Your task to perform on an android device: check out phone information Image 0: 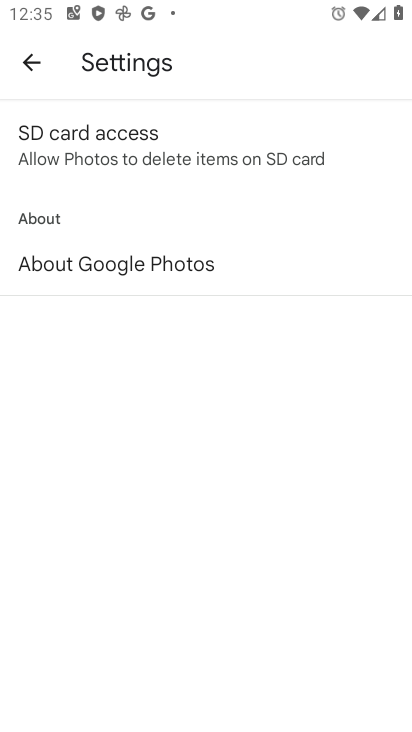
Step 0: click (26, 57)
Your task to perform on an android device: check out phone information Image 1: 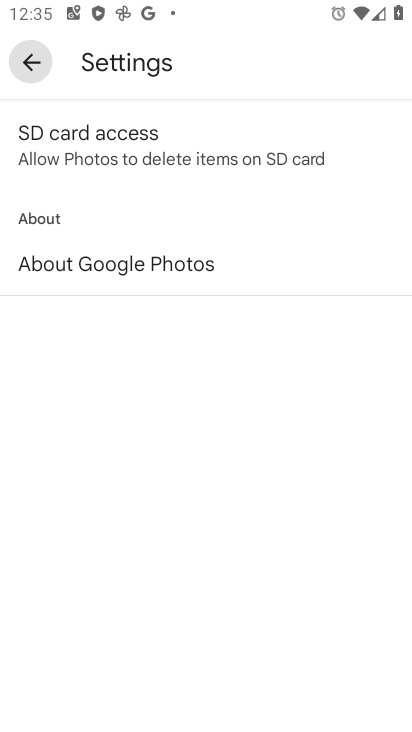
Step 1: click (27, 58)
Your task to perform on an android device: check out phone information Image 2: 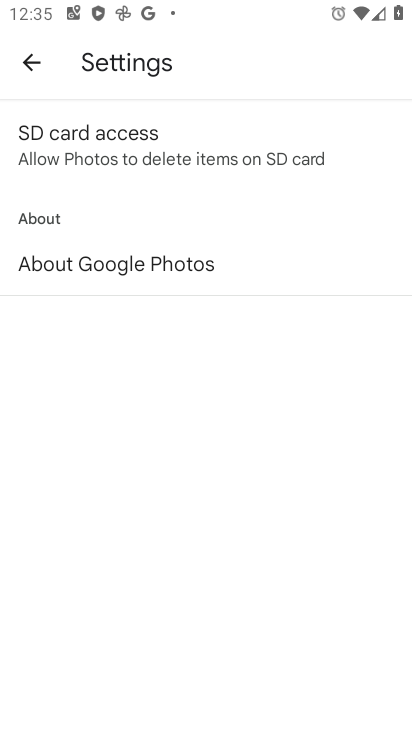
Step 2: click (27, 58)
Your task to perform on an android device: check out phone information Image 3: 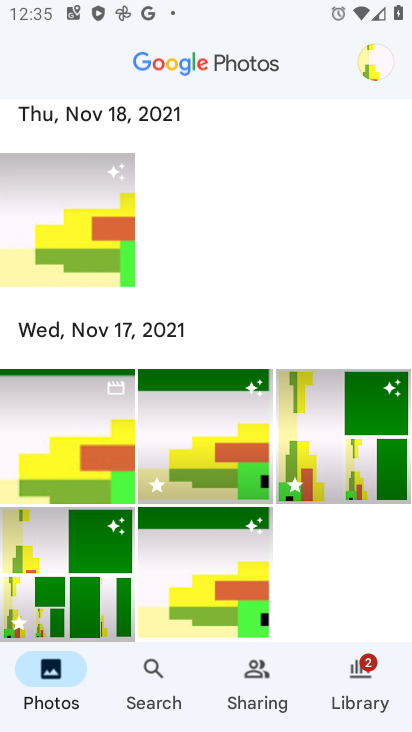
Step 3: press back button
Your task to perform on an android device: check out phone information Image 4: 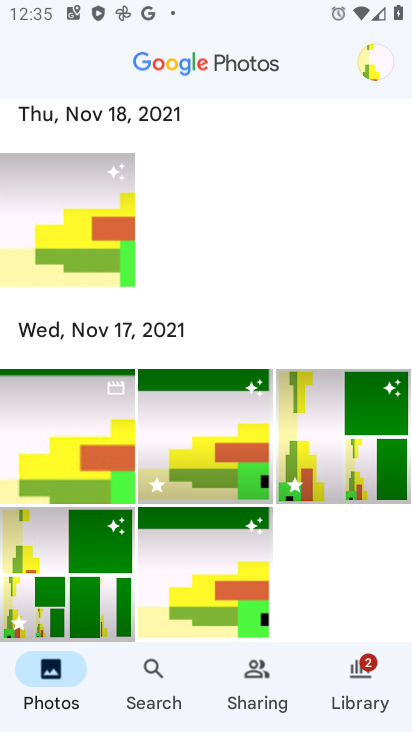
Step 4: press back button
Your task to perform on an android device: check out phone information Image 5: 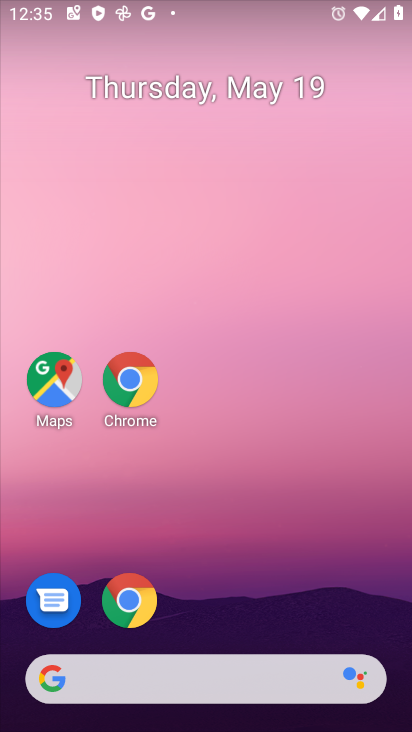
Step 5: drag from (240, 599) to (130, 311)
Your task to perform on an android device: check out phone information Image 6: 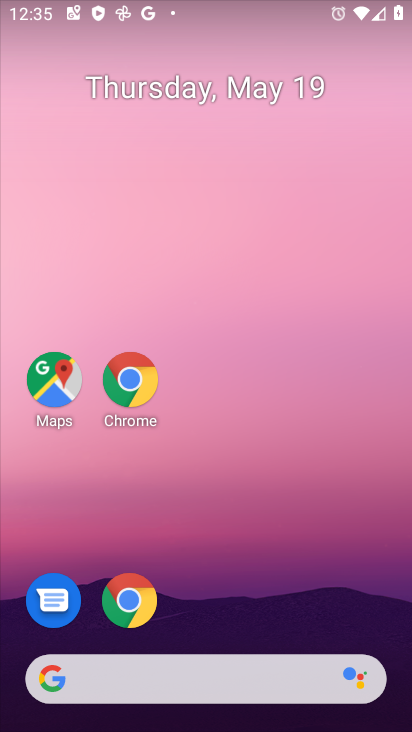
Step 6: drag from (268, 461) to (242, 126)
Your task to perform on an android device: check out phone information Image 7: 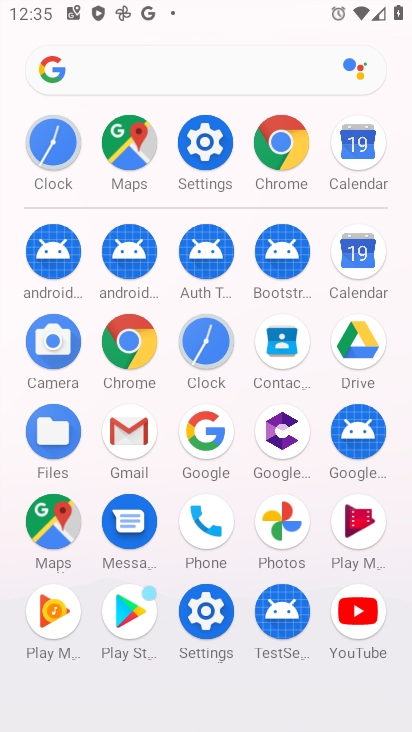
Step 7: click (189, 148)
Your task to perform on an android device: check out phone information Image 8: 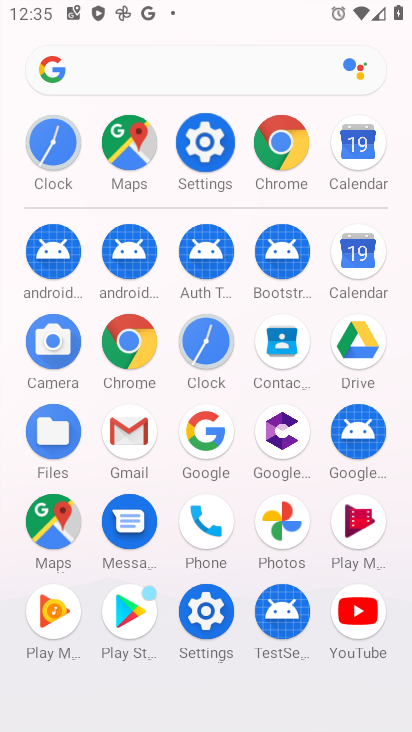
Step 8: click (188, 148)
Your task to perform on an android device: check out phone information Image 9: 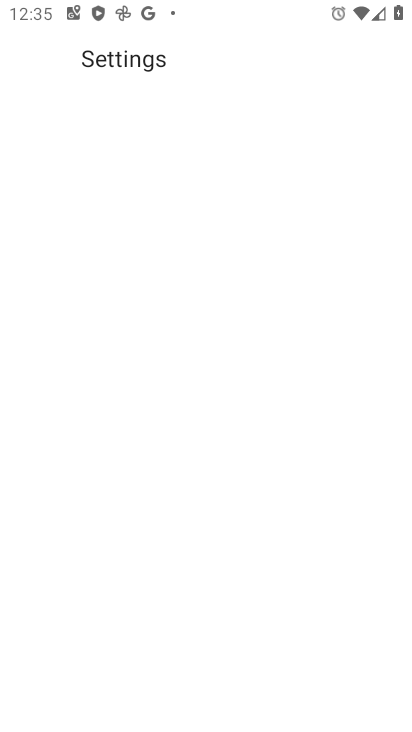
Step 9: click (189, 148)
Your task to perform on an android device: check out phone information Image 10: 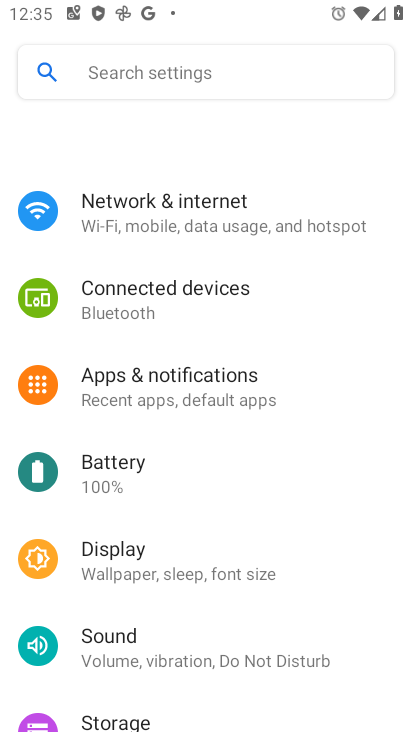
Step 10: click (194, 146)
Your task to perform on an android device: check out phone information Image 11: 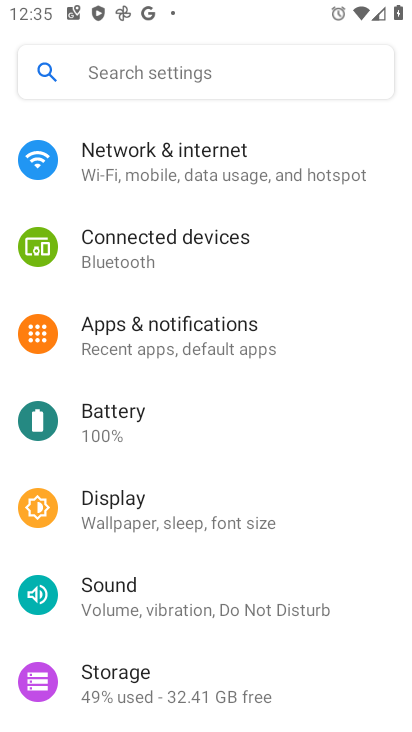
Step 11: click (195, 146)
Your task to perform on an android device: check out phone information Image 12: 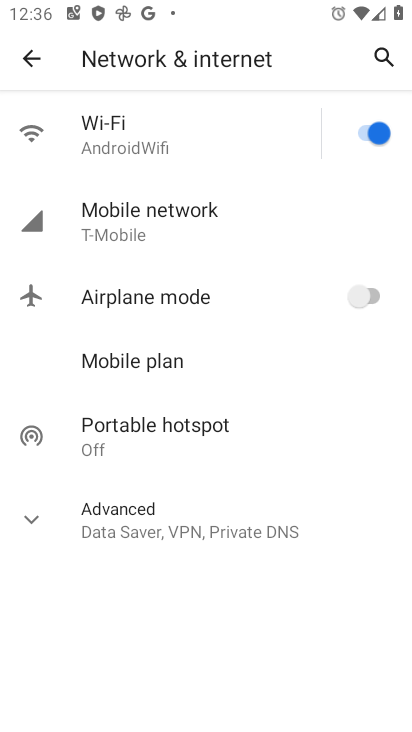
Step 12: click (26, 63)
Your task to perform on an android device: check out phone information Image 13: 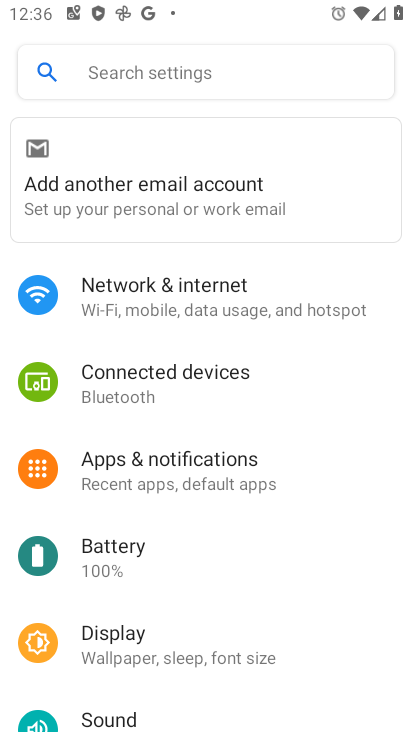
Step 13: drag from (161, 547) to (97, 262)
Your task to perform on an android device: check out phone information Image 14: 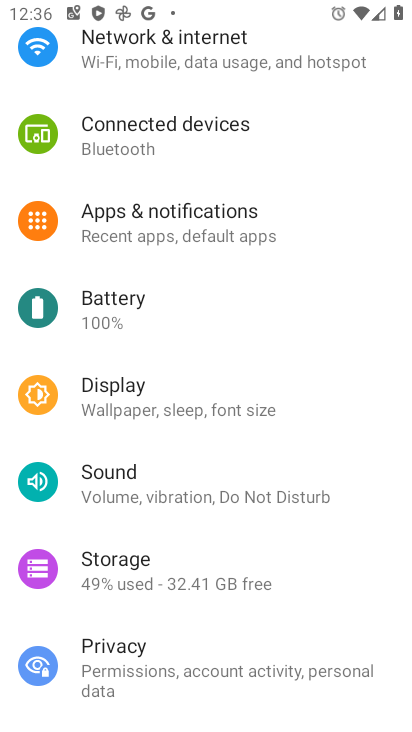
Step 14: drag from (151, 425) to (148, 169)
Your task to perform on an android device: check out phone information Image 15: 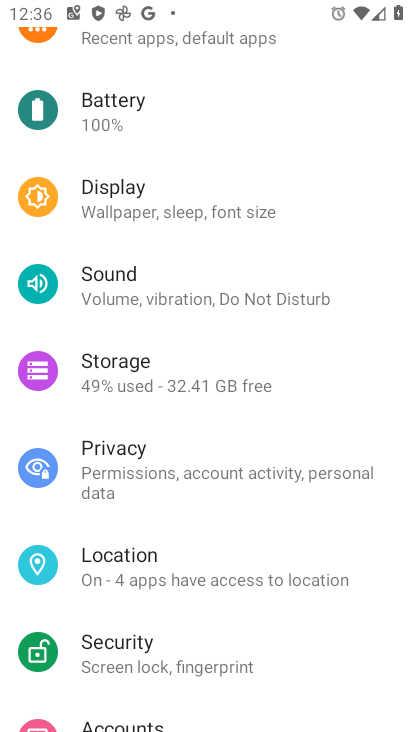
Step 15: drag from (168, 297) to (271, 659)
Your task to perform on an android device: check out phone information Image 16: 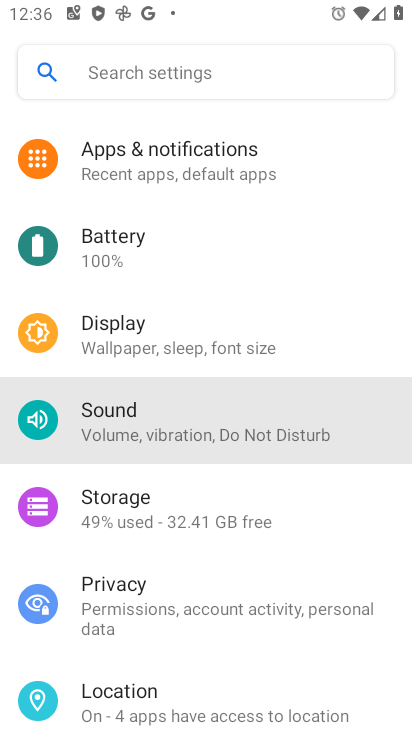
Step 16: drag from (179, 349) to (227, 585)
Your task to perform on an android device: check out phone information Image 17: 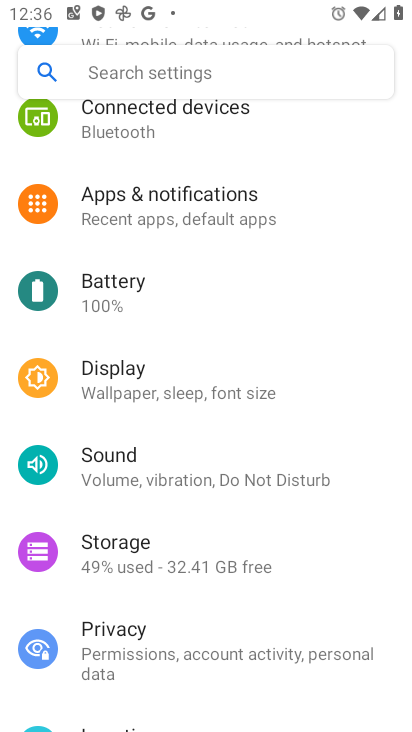
Step 17: drag from (162, 534) to (127, 264)
Your task to perform on an android device: check out phone information Image 18: 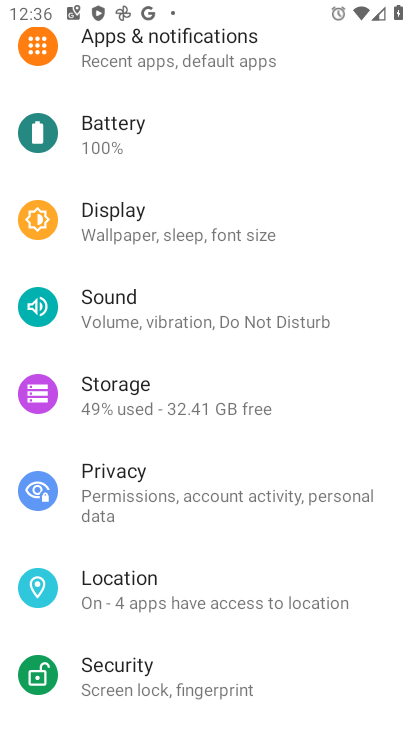
Step 18: drag from (165, 463) to (141, 195)
Your task to perform on an android device: check out phone information Image 19: 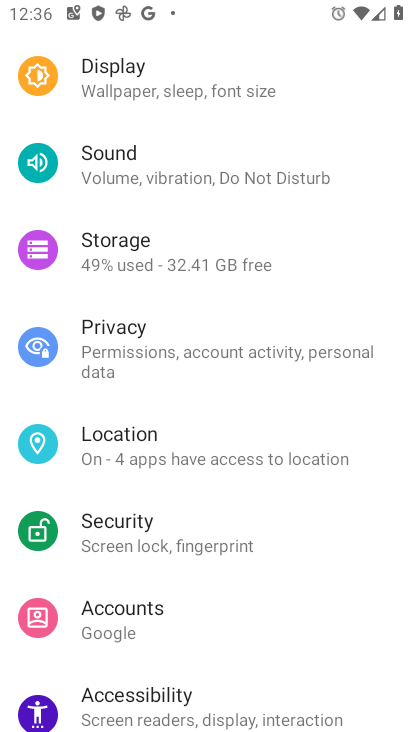
Step 19: drag from (198, 445) to (184, 224)
Your task to perform on an android device: check out phone information Image 20: 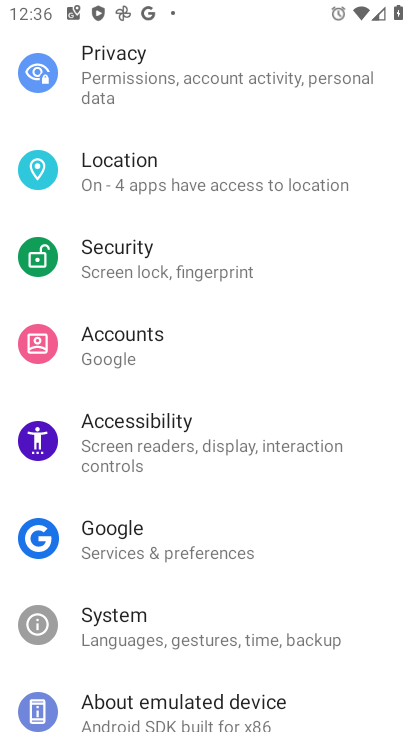
Step 20: drag from (151, 443) to (129, 161)
Your task to perform on an android device: check out phone information Image 21: 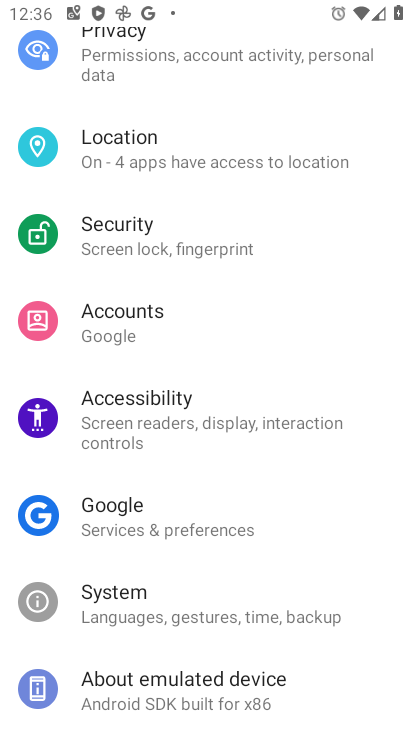
Step 21: drag from (180, 403) to (176, 182)
Your task to perform on an android device: check out phone information Image 22: 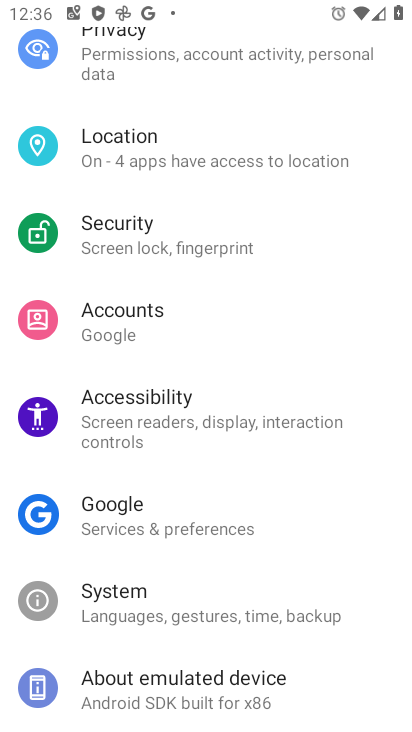
Step 22: click (137, 672)
Your task to perform on an android device: check out phone information Image 23: 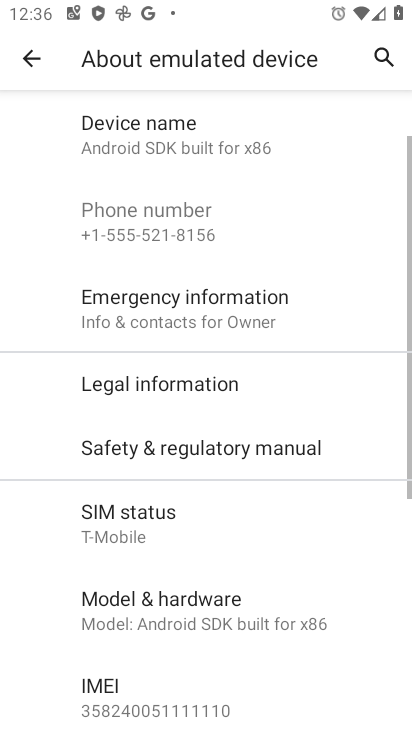
Step 23: task complete